Your task to perform on an android device: Do I have any events tomorrow? Image 0: 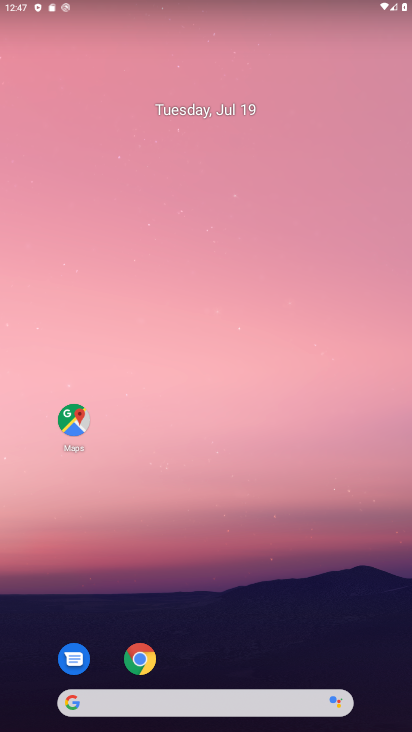
Step 0: press home button
Your task to perform on an android device: Do I have any events tomorrow? Image 1: 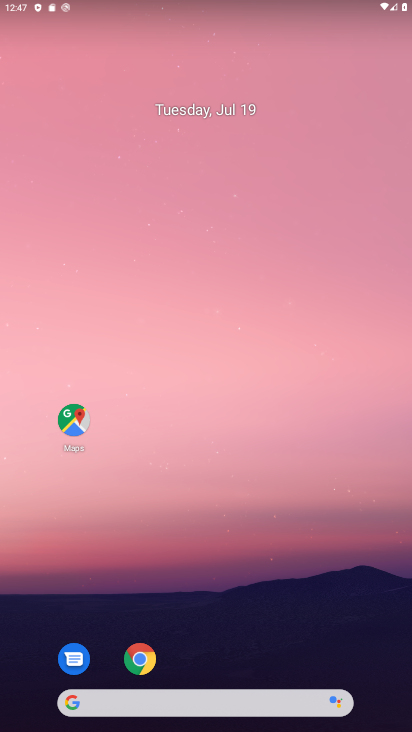
Step 1: drag from (251, 695) to (128, 32)
Your task to perform on an android device: Do I have any events tomorrow? Image 2: 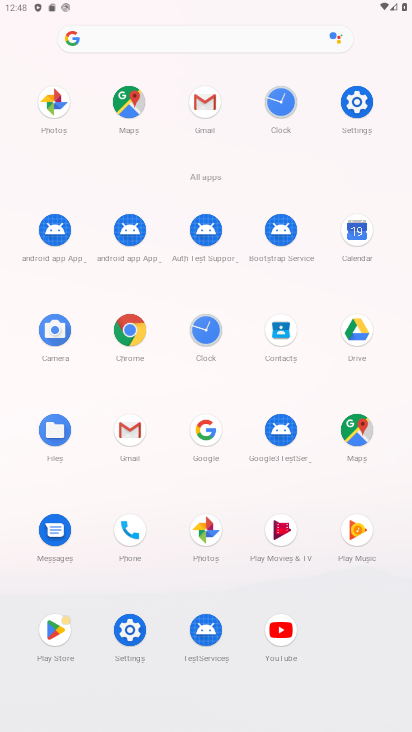
Step 2: click (369, 238)
Your task to perform on an android device: Do I have any events tomorrow? Image 3: 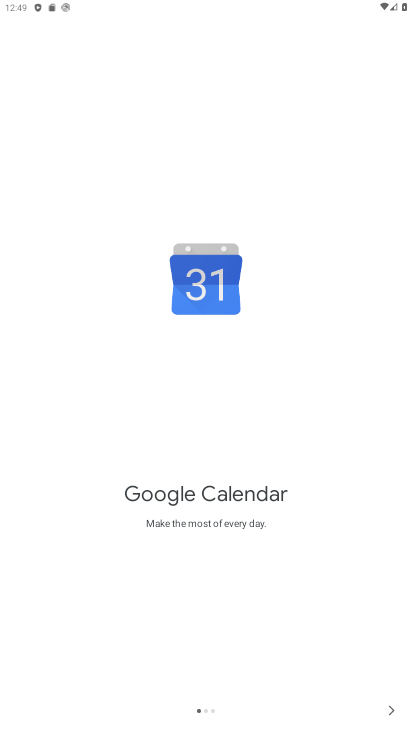
Step 3: click (391, 707)
Your task to perform on an android device: Do I have any events tomorrow? Image 4: 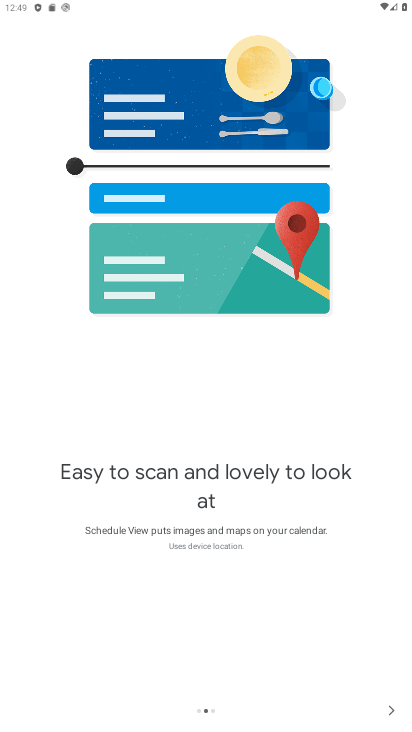
Step 4: click (391, 707)
Your task to perform on an android device: Do I have any events tomorrow? Image 5: 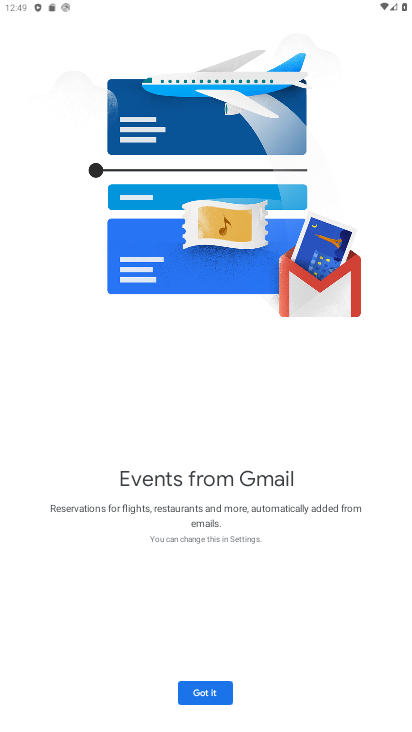
Step 5: click (202, 693)
Your task to perform on an android device: Do I have any events tomorrow? Image 6: 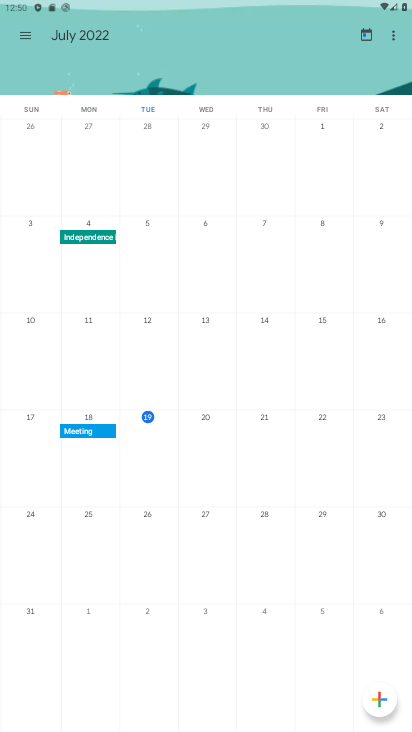
Step 6: click (203, 458)
Your task to perform on an android device: Do I have any events tomorrow? Image 7: 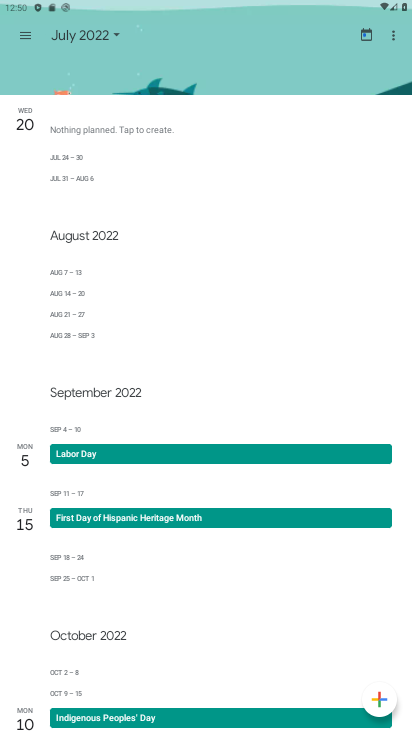
Step 7: task complete